Your task to perform on an android device: see tabs open on other devices in the chrome app Image 0: 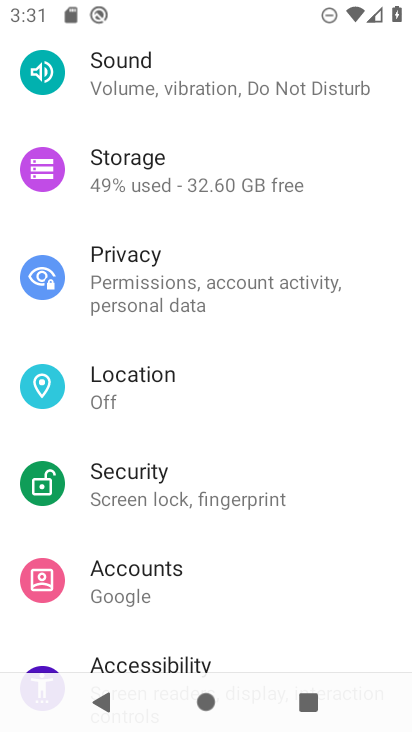
Step 0: press home button
Your task to perform on an android device: see tabs open on other devices in the chrome app Image 1: 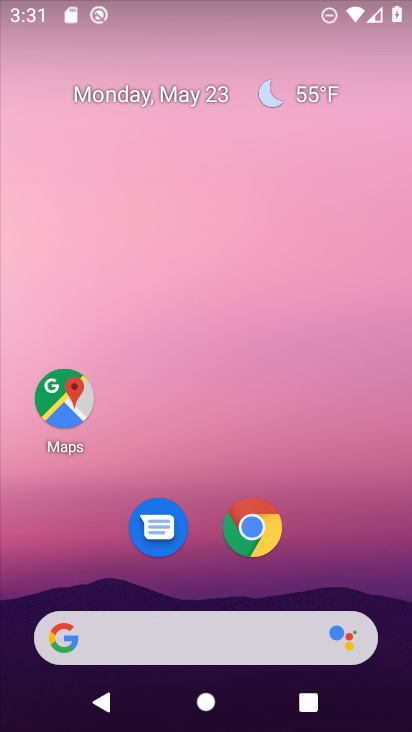
Step 1: drag from (210, 585) to (217, 48)
Your task to perform on an android device: see tabs open on other devices in the chrome app Image 2: 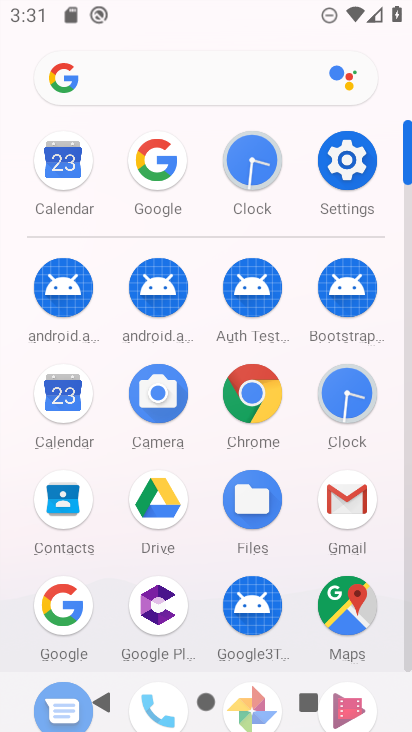
Step 2: click (245, 387)
Your task to perform on an android device: see tabs open on other devices in the chrome app Image 3: 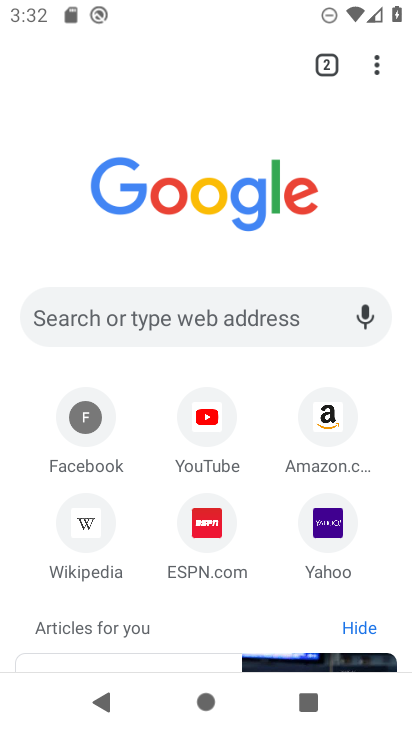
Step 3: click (382, 65)
Your task to perform on an android device: see tabs open on other devices in the chrome app Image 4: 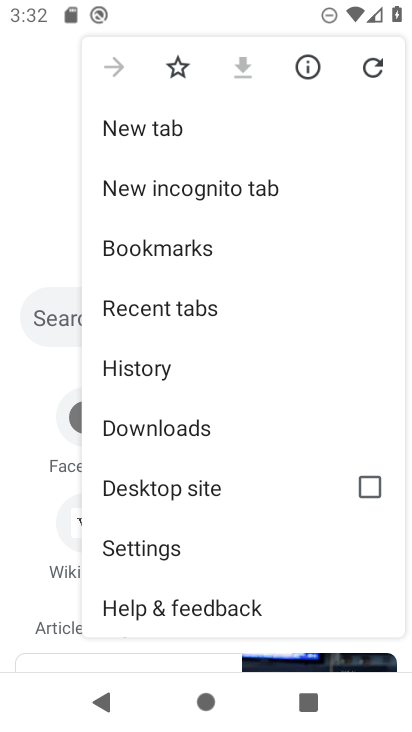
Step 4: click (219, 305)
Your task to perform on an android device: see tabs open on other devices in the chrome app Image 5: 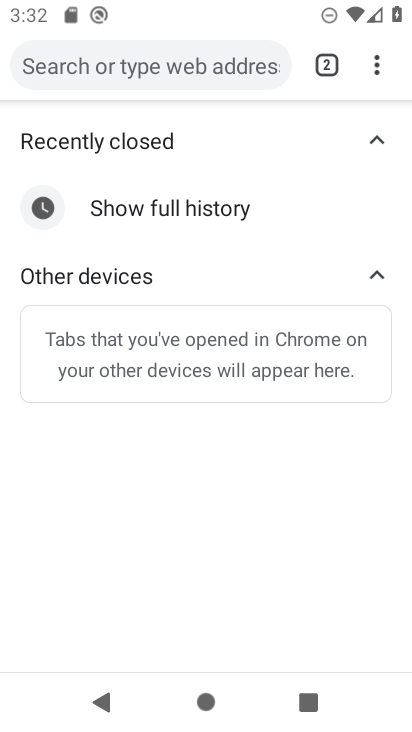
Step 5: task complete